Your task to perform on an android device: Go to Google Image 0: 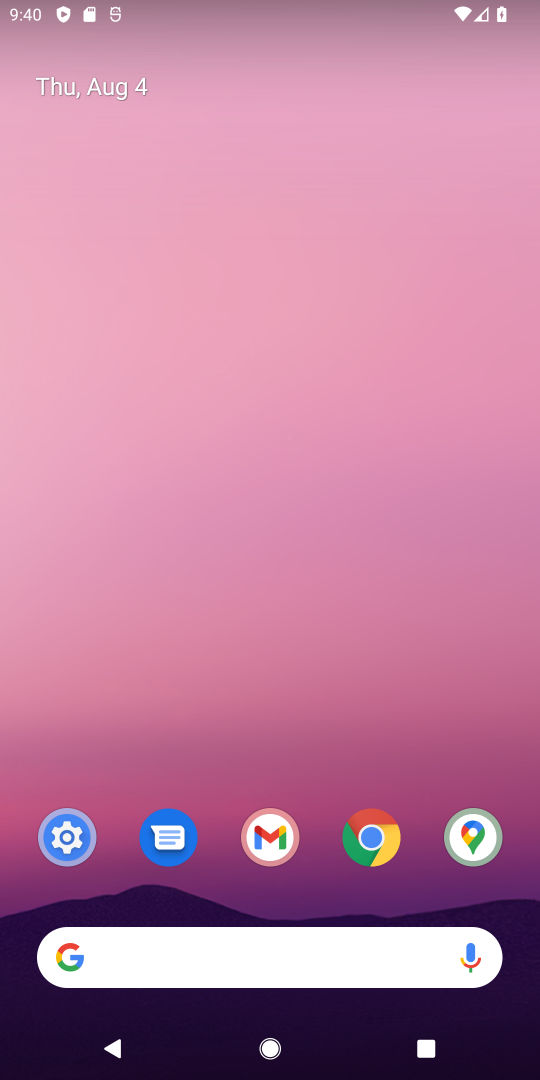
Step 0: drag from (428, 781) to (226, 118)
Your task to perform on an android device: Go to Google Image 1: 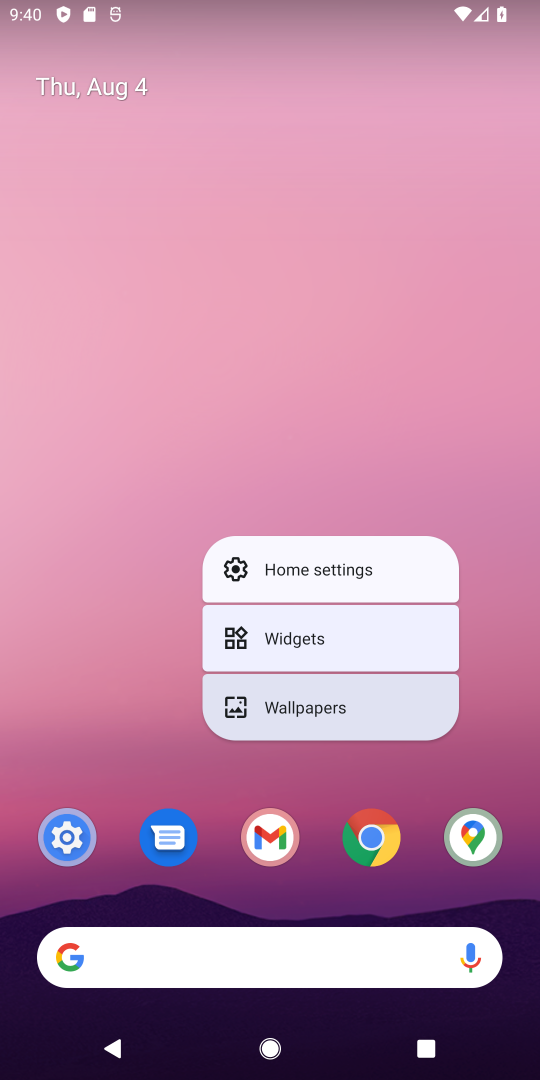
Step 1: click (502, 538)
Your task to perform on an android device: Go to Google Image 2: 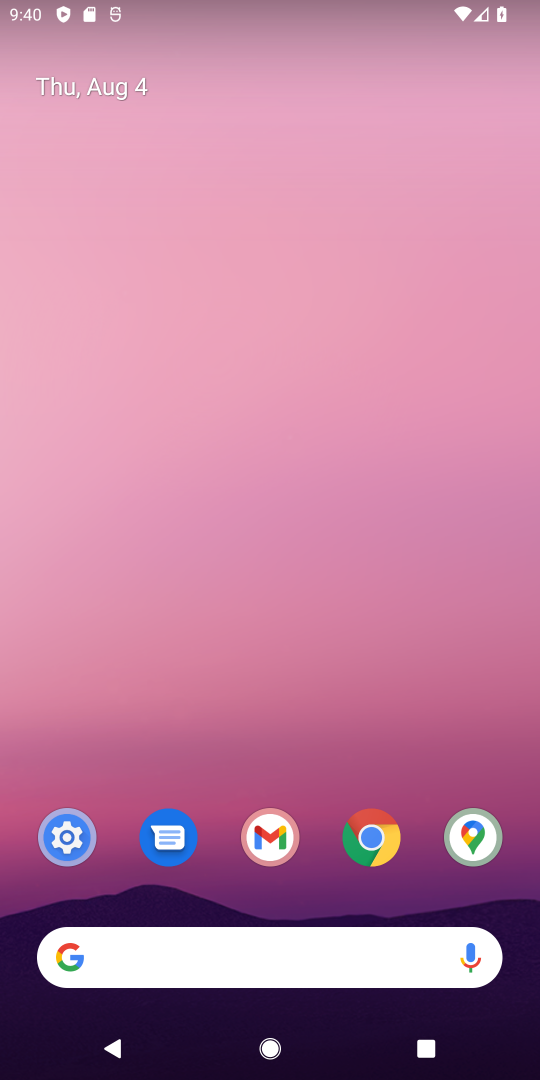
Step 2: drag from (422, 836) to (139, 66)
Your task to perform on an android device: Go to Google Image 3: 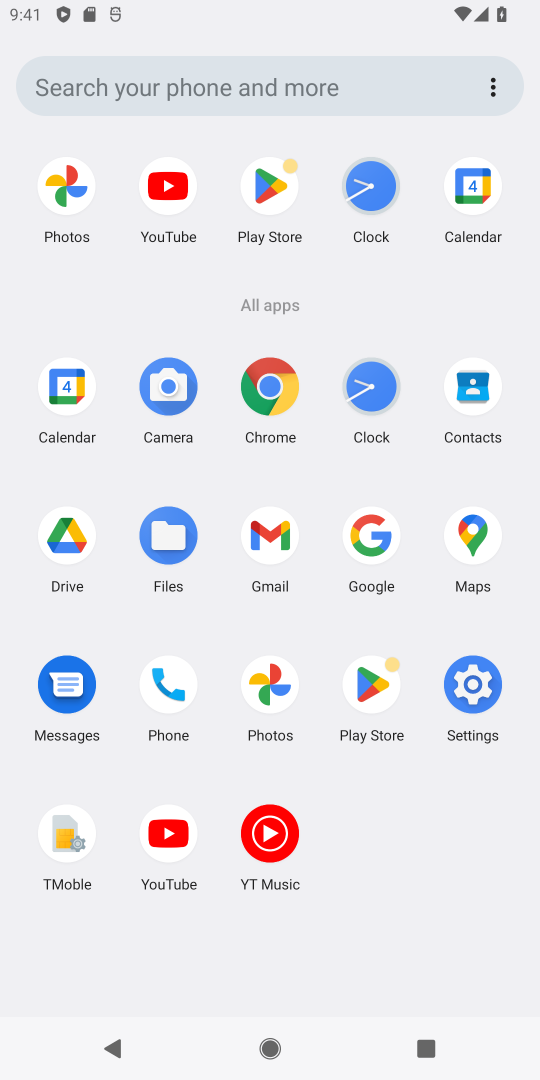
Step 3: click (383, 546)
Your task to perform on an android device: Go to Google Image 4: 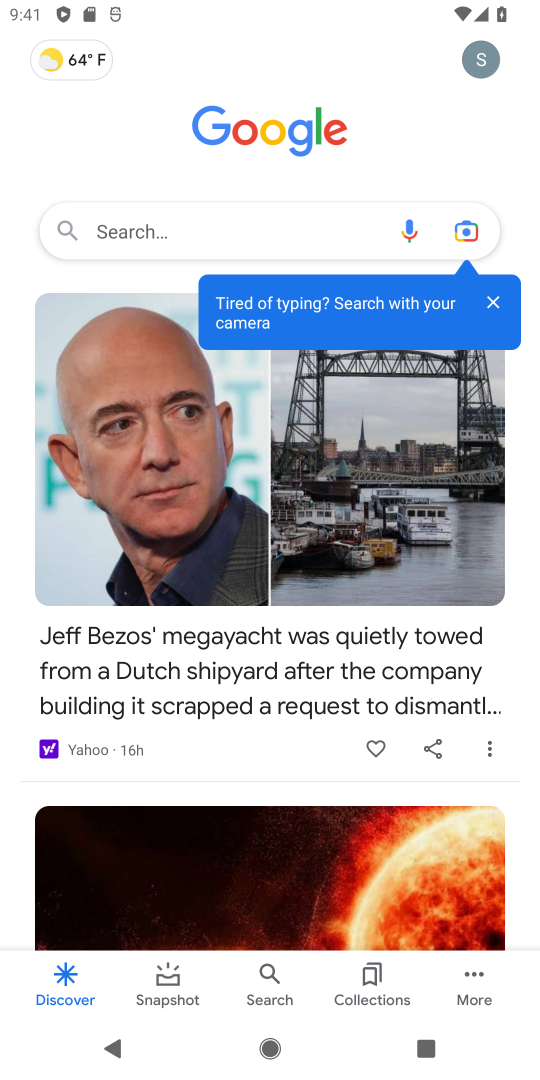
Step 4: task complete